Your task to perform on an android device: toggle wifi Image 0: 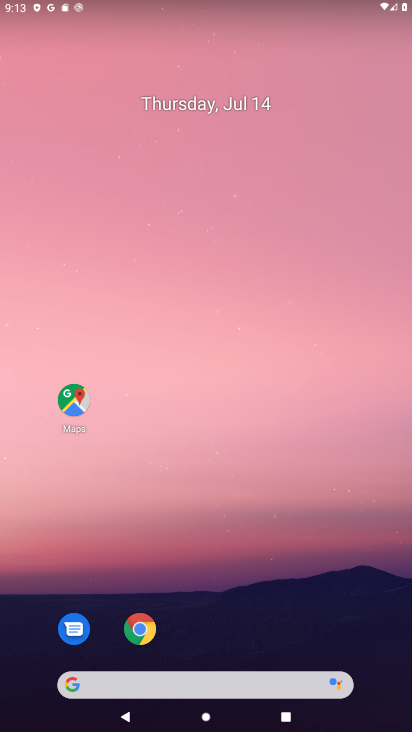
Step 0: drag from (216, 18) to (185, 394)
Your task to perform on an android device: toggle wifi Image 1: 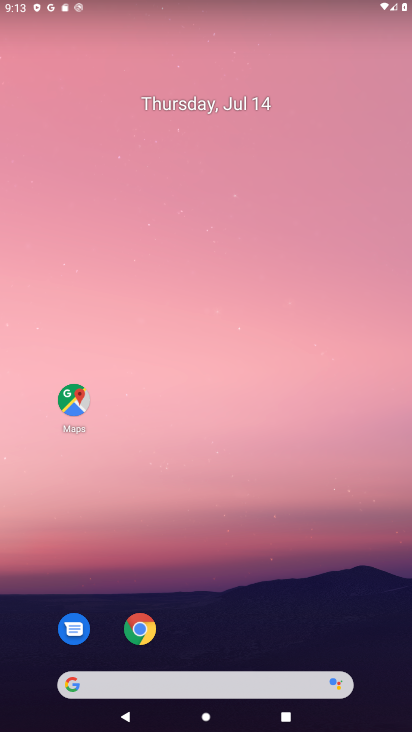
Step 1: drag from (218, 18) to (144, 535)
Your task to perform on an android device: toggle wifi Image 2: 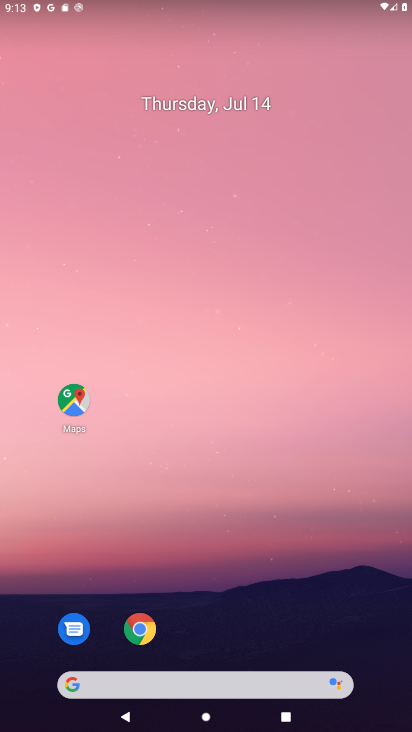
Step 2: drag from (85, 6) to (93, 454)
Your task to perform on an android device: toggle wifi Image 3: 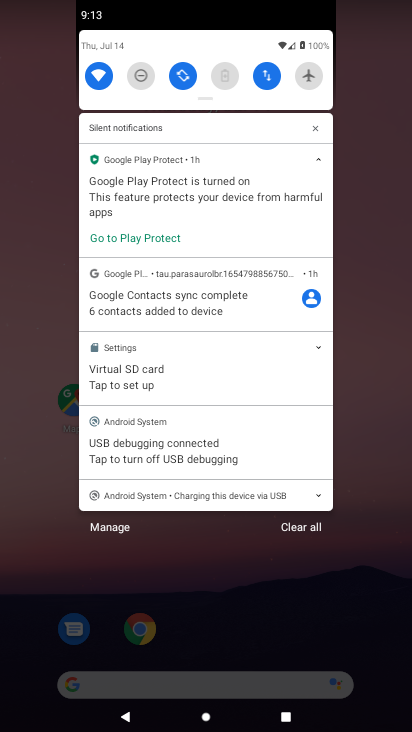
Step 3: click (95, 76)
Your task to perform on an android device: toggle wifi Image 4: 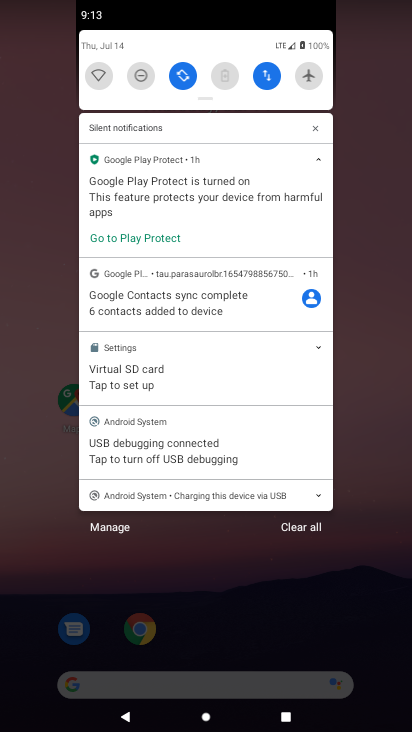
Step 4: task complete